Your task to perform on an android device: all mails in gmail Image 0: 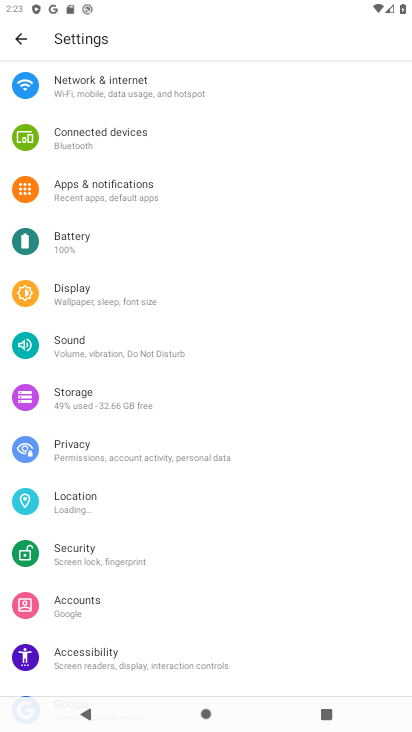
Step 0: press home button
Your task to perform on an android device: all mails in gmail Image 1: 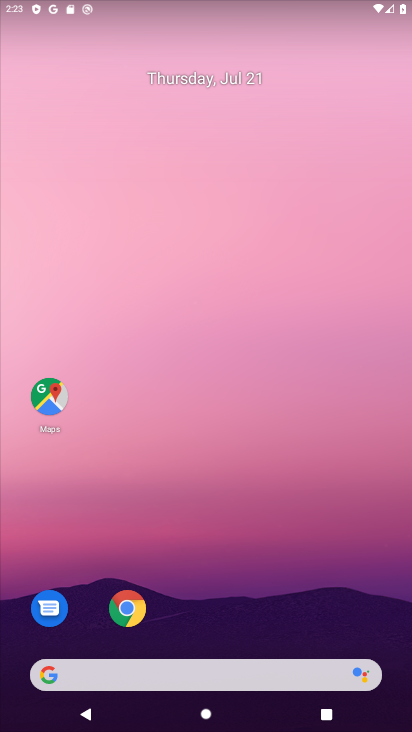
Step 1: drag from (244, 656) to (238, 161)
Your task to perform on an android device: all mails in gmail Image 2: 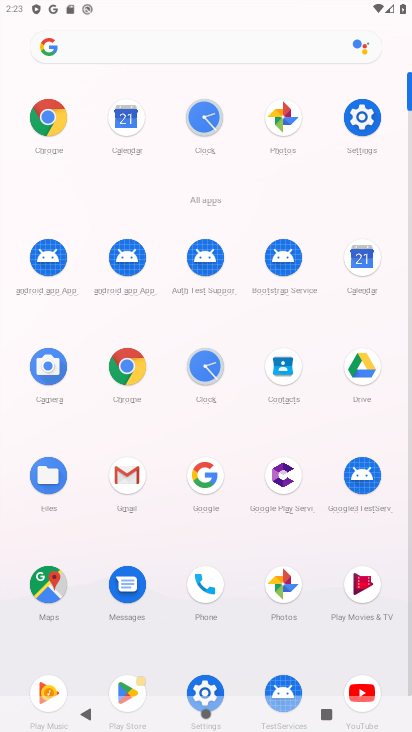
Step 2: click (126, 475)
Your task to perform on an android device: all mails in gmail Image 3: 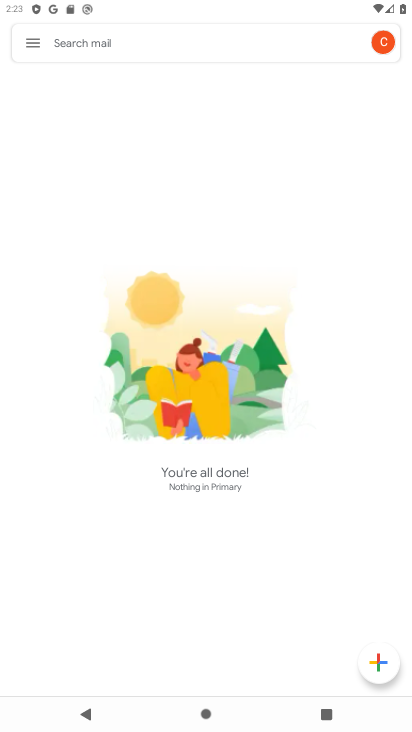
Step 3: click (31, 39)
Your task to perform on an android device: all mails in gmail Image 4: 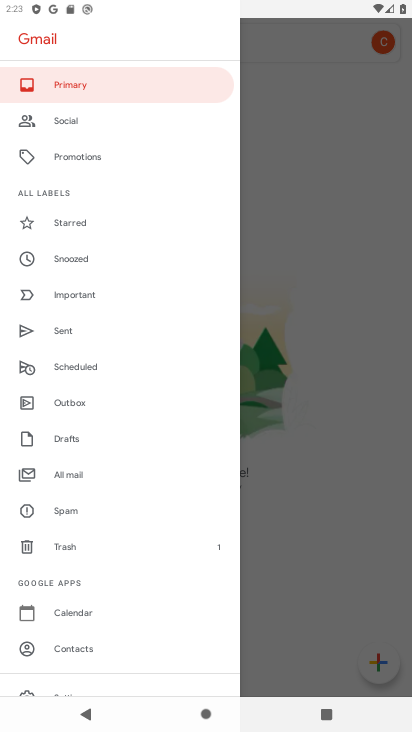
Step 4: click (74, 480)
Your task to perform on an android device: all mails in gmail Image 5: 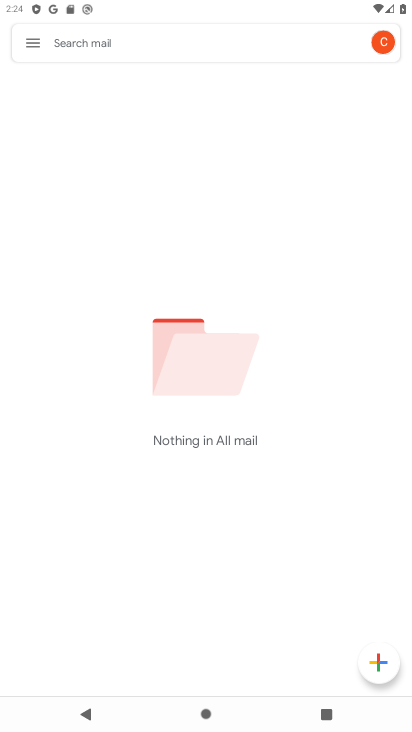
Step 5: task complete